Your task to perform on an android device: turn smart compose on in the gmail app Image 0: 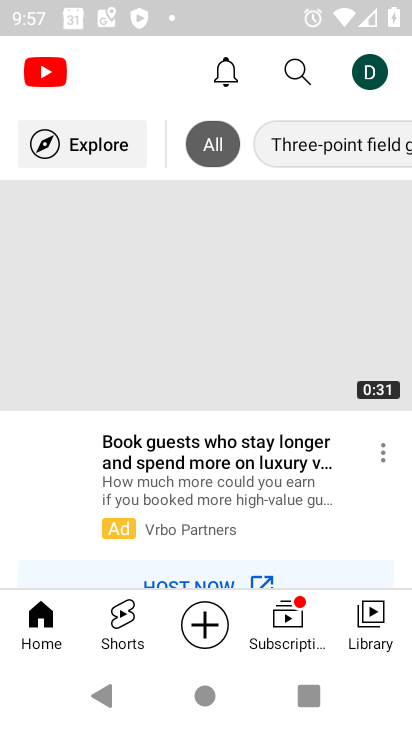
Step 0: press home button
Your task to perform on an android device: turn smart compose on in the gmail app Image 1: 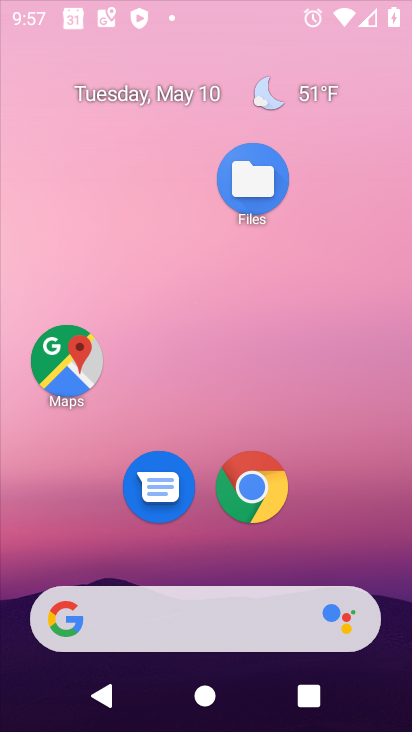
Step 1: click (242, 14)
Your task to perform on an android device: turn smart compose on in the gmail app Image 2: 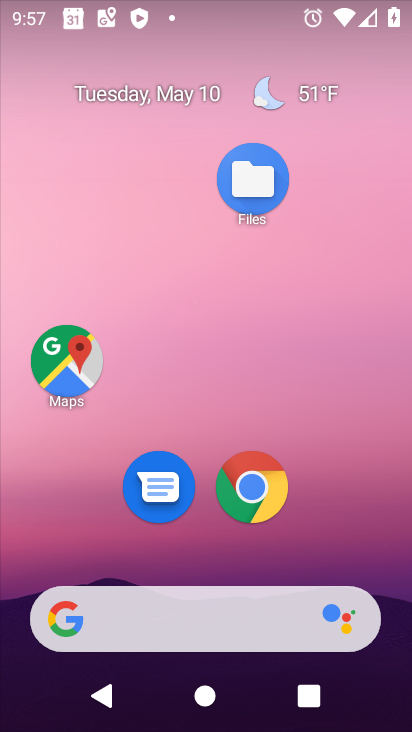
Step 2: drag from (212, 528) to (247, 91)
Your task to perform on an android device: turn smart compose on in the gmail app Image 3: 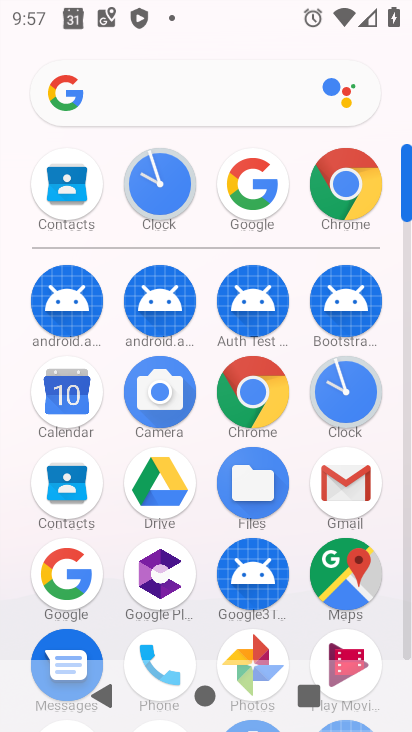
Step 3: click (341, 491)
Your task to perform on an android device: turn smart compose on in the gmail app Image 4: 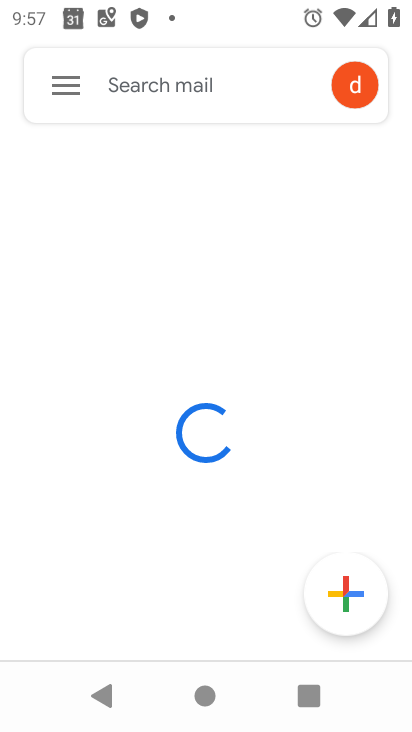
Step 4: click (65, 80)
Your task to perform on an android device: turn smart compose on in the gmail app Image 5: 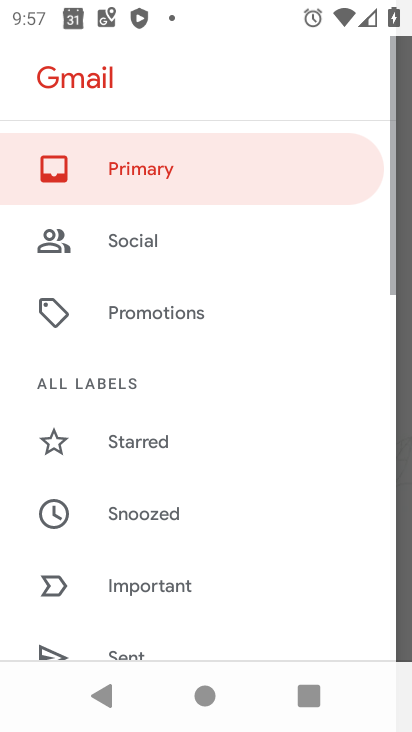
Step 5: drag from (175, 539) to (228, 150)
Your task to perform on an android device: turn smart compose on in the gmail app Image 6: 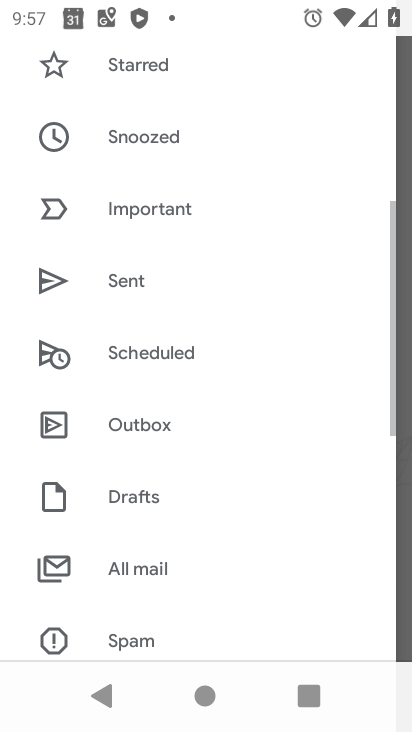
Step 6: drag from (160, 614) to (240, 203)
Your task to perform on an android device: turn smart compose on in the gmail app Image 7: 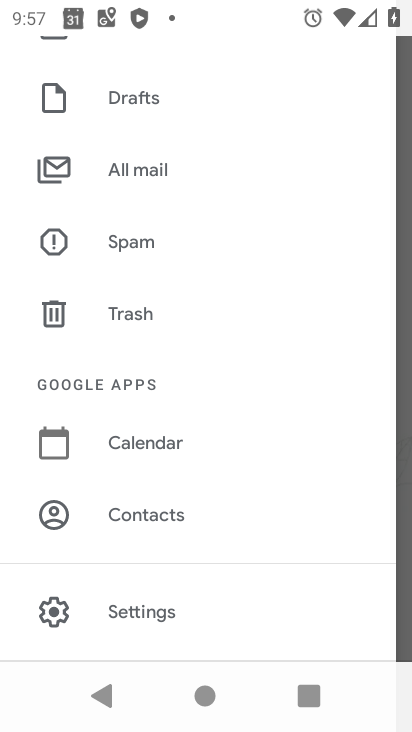
Step 7: click (136, 598)
Your task to perform on an android device: turn smart compose on in the gmail app Image 8: 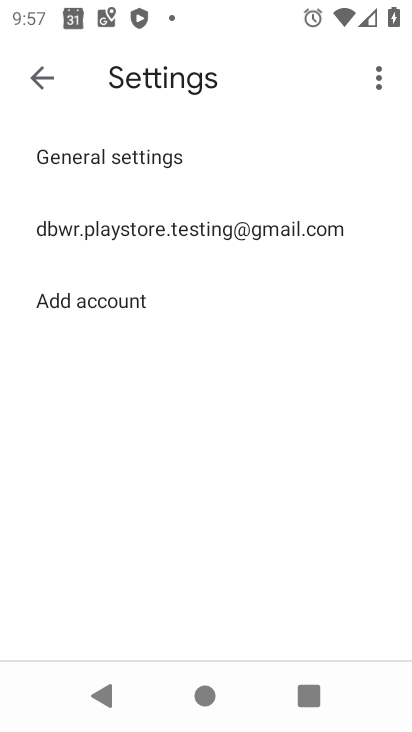
Step 8: click (169, 240)
Your task to perform on an android device: turn smart compose on in the gmail app Image 9: 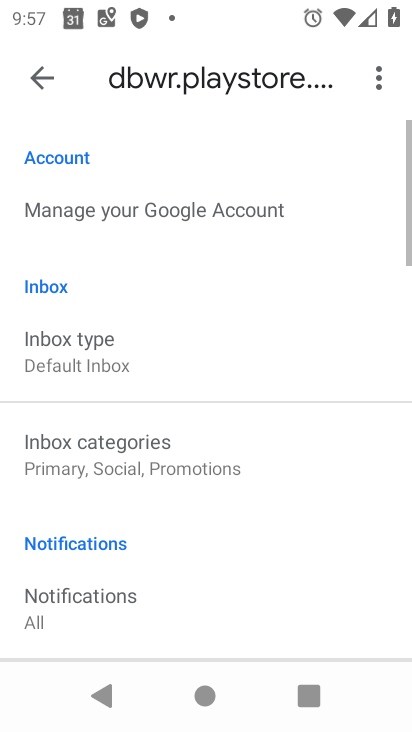
Step 9: task complete